Your task to perform on an android device: turn vacation reply on in the gmail app Image 0: 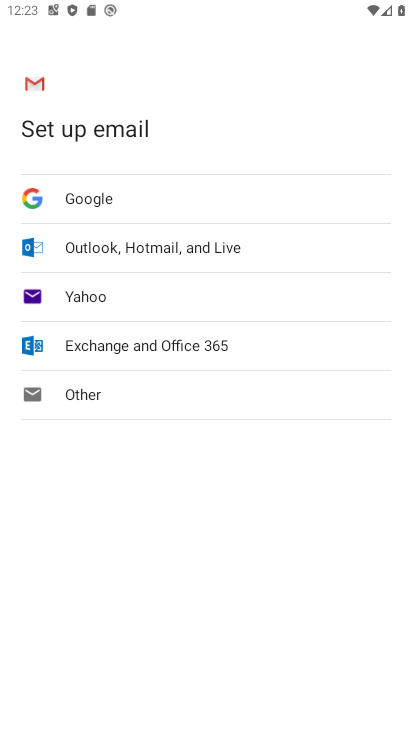
Step 0: press home button
Your task to perform on an android device: turn vacation reply on in the gmail app Image 1: 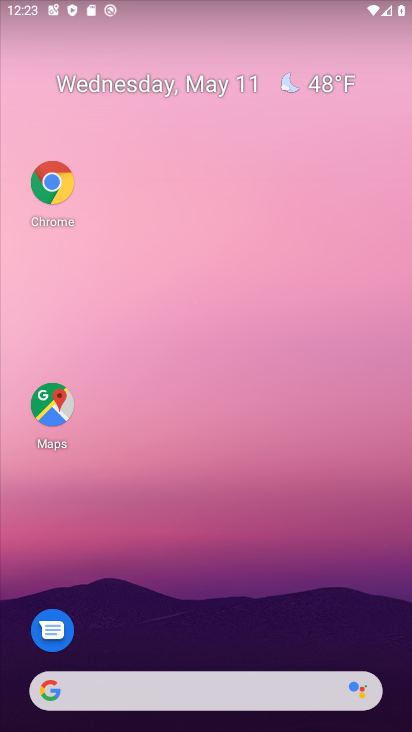
Step 1: drag from (191, 673) to (211, 2)
Your task to perform on an android device: turn vacation reply on in the gmail app Image 2: 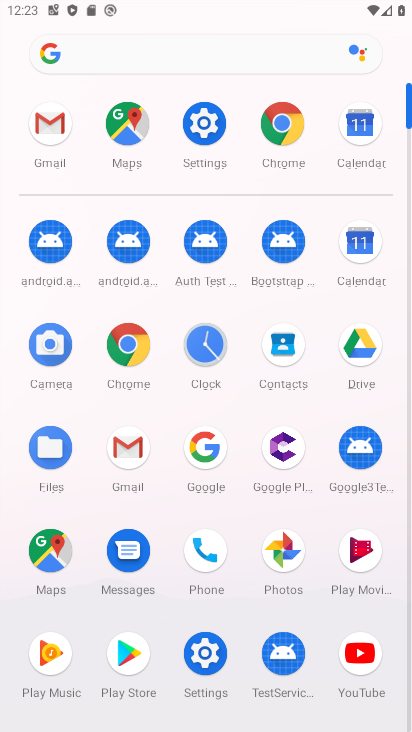
Step 2: click (123, 449)
Your task to perform on an android device: turn vacation reply on in the gmail app Image 3: 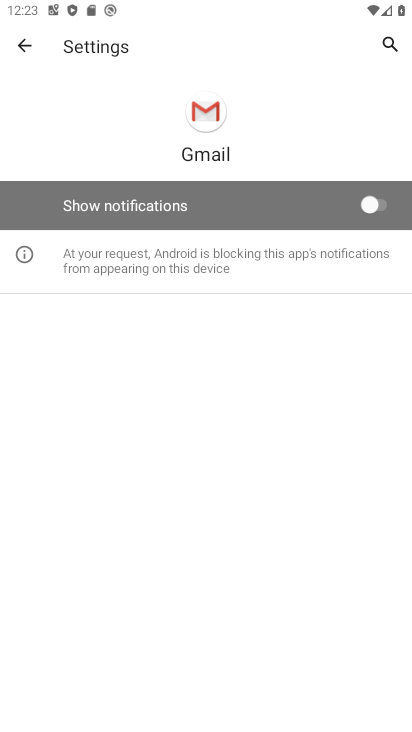
Step 3: click (30, 47)
Your task to perform on an android device: turn vacation reply on in the gmail app Image 4: 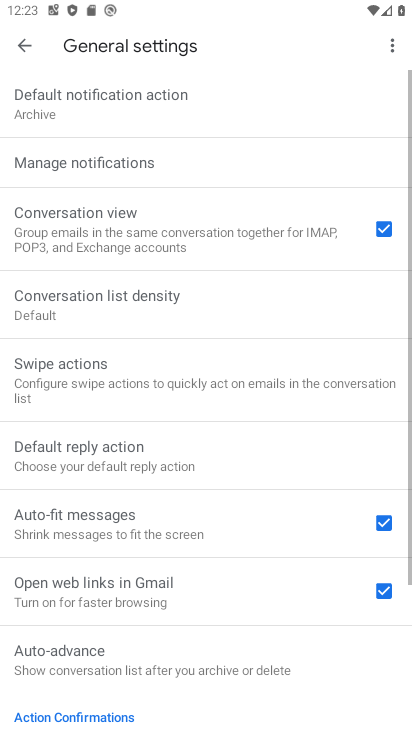
Step 4: click (25, 51)
Your task to perform on an android device: turn vacation reply on in the gmail app Image 5: 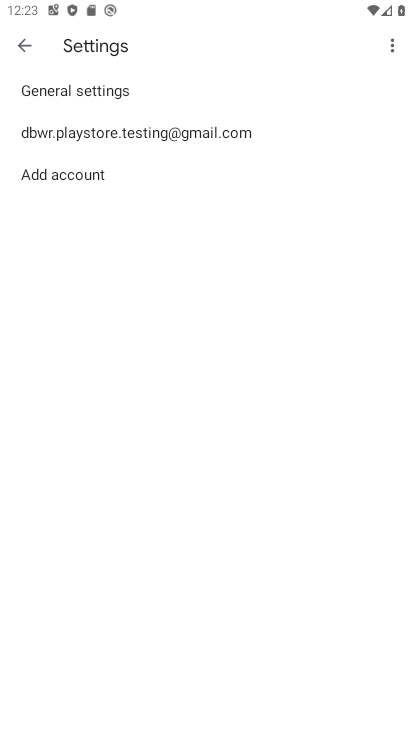
Step 5: click (54, 146)
Your task to perform on an android device: turn vacation reply on in the gmail app Image 6: 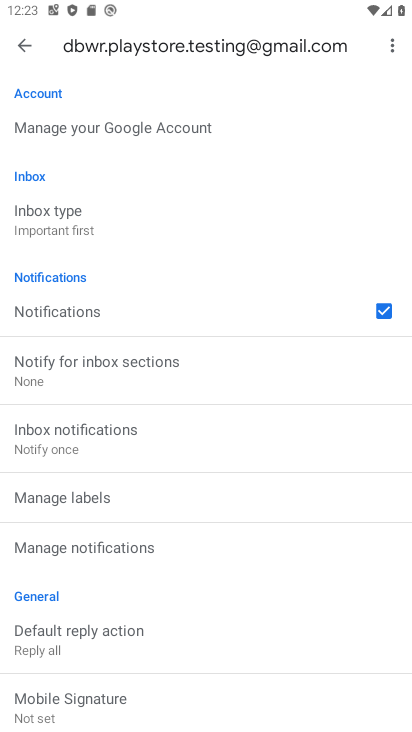
Step 6: drag from (111, 548) to (82, 74)
Your task to perform on an android device: turn vacation reply on in the gmail app Image 7: 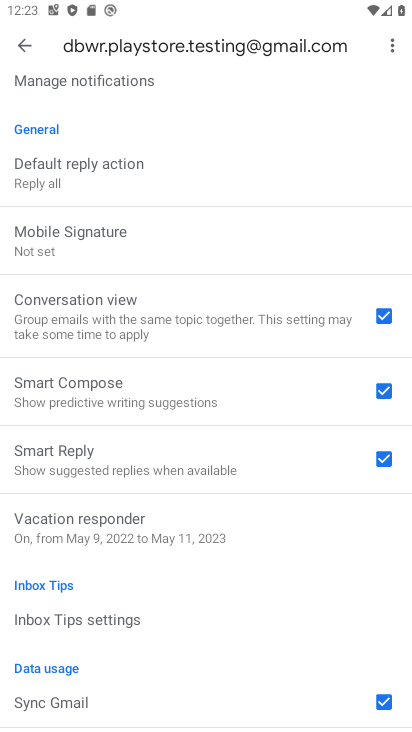
Step 7: click (128, 528)
Your task to perform on an android device: turn vacation reply on in the gmail app Image 8: 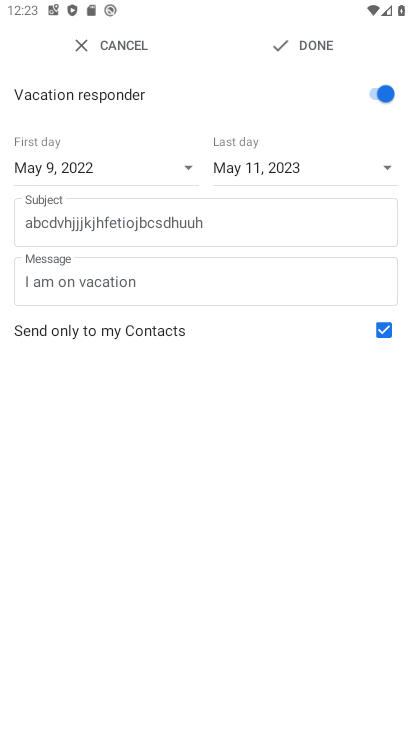
Step 8: click (314, 41)
Your task to perform on an android device: turn vacation reply on in the gmail app Image 9: 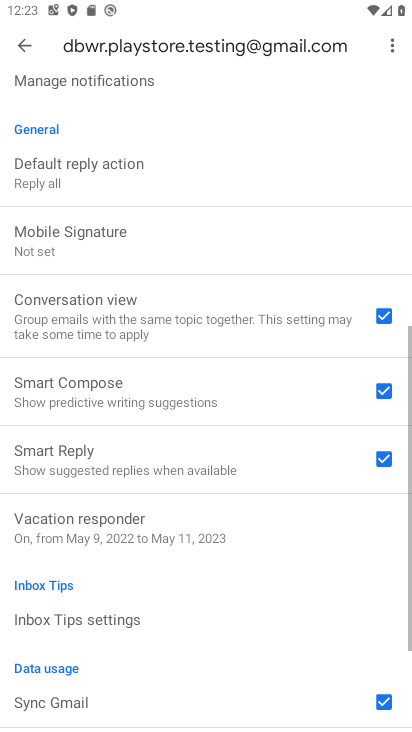
Step 9: task complete